Your task to perform on an android device: Open the Play Movies app and select the watchlist tab. Image 0: 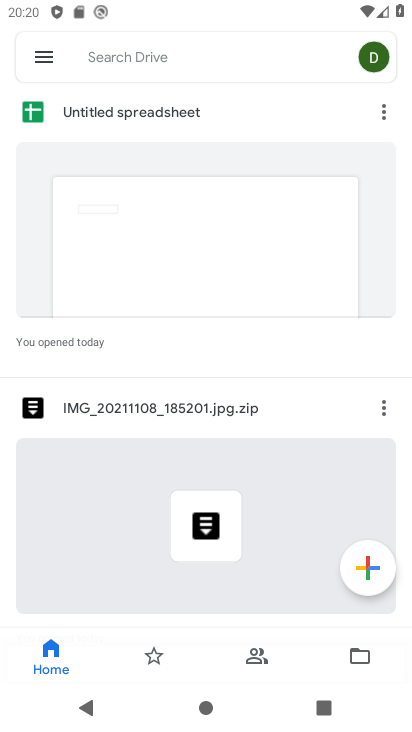
Step 0: press home button
Your task to perform on an android device: Open the Play Movies app and select the watchlist tab. Image 1: 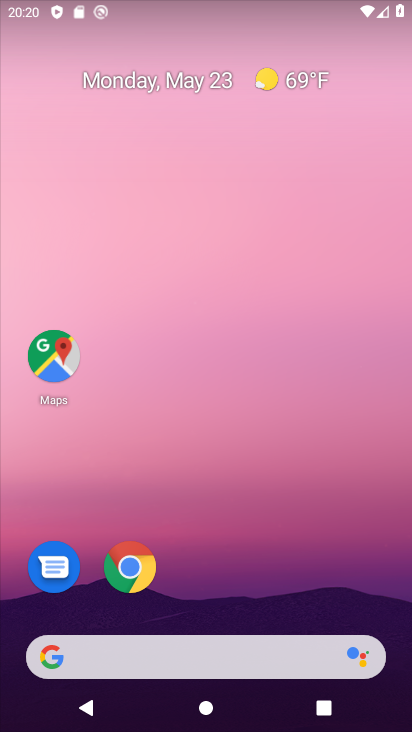
Step 1: drag from (226, 592) to (216, 4)
Your task to perform on an android device: Open the Play Movies app and select the watchlist tab. Image 2: 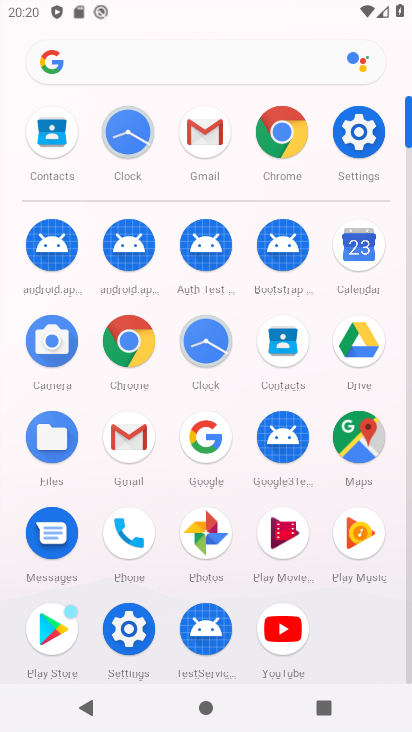
Step 2: click (57, 638)
Your task to perform on an android device: Open the Play Movies app and select the watchlist tab. Image 3: 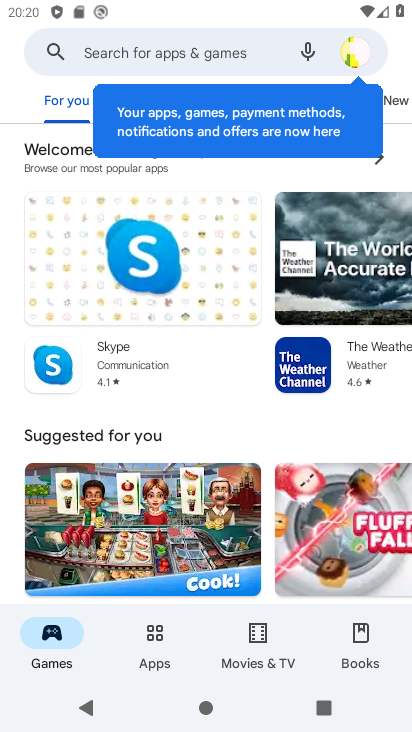
Step 3: press home button
Your task to perform on an android device: Open the Play Movies app and select the watchlist tab. Image 4: 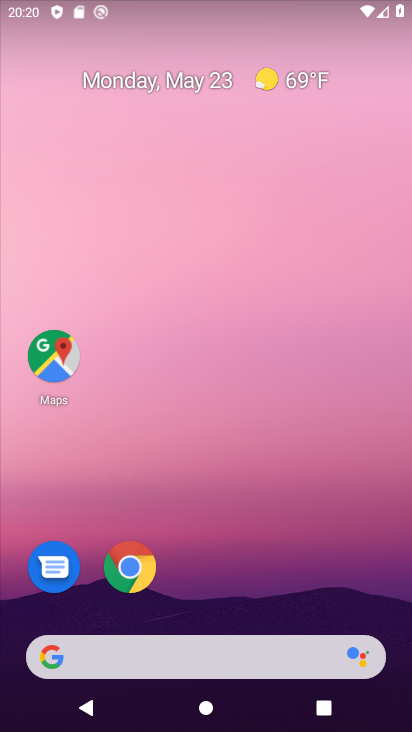
Step 4: drag from (231, 593) to (358, 13)
Your task to perform on an android device: Open the Play Movies app and select the watchlist tab. Image 5: 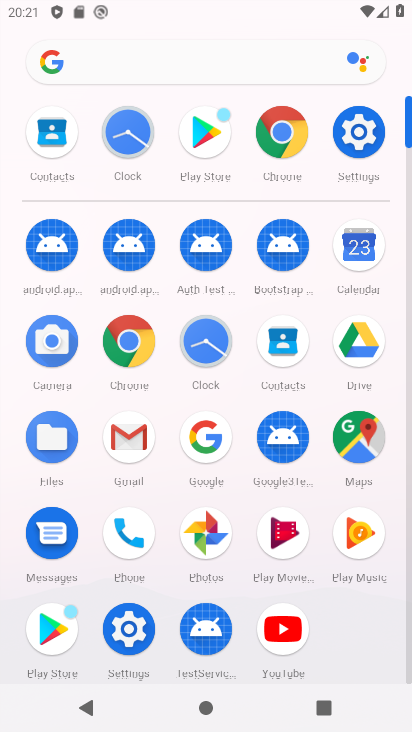
Step 5: click (284, 561)
Your task to perform on an android device: Open the Play Movies app and select the watchlist tab. Image 6: 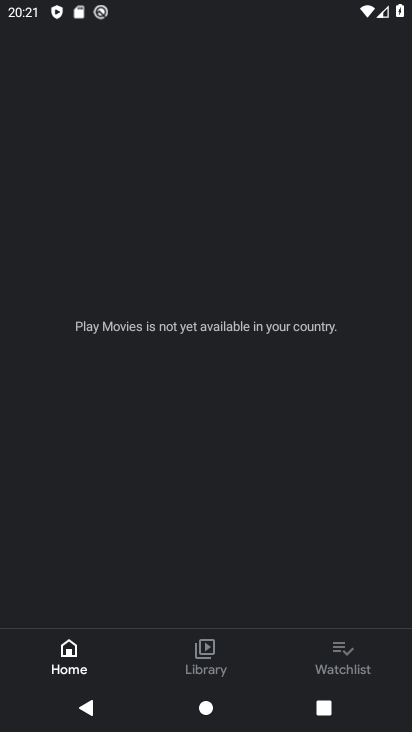
Step 6: click (343, 649)
Your task to perform on an android device: Open the Play Movies app and select the watchlist tab. Image 7: 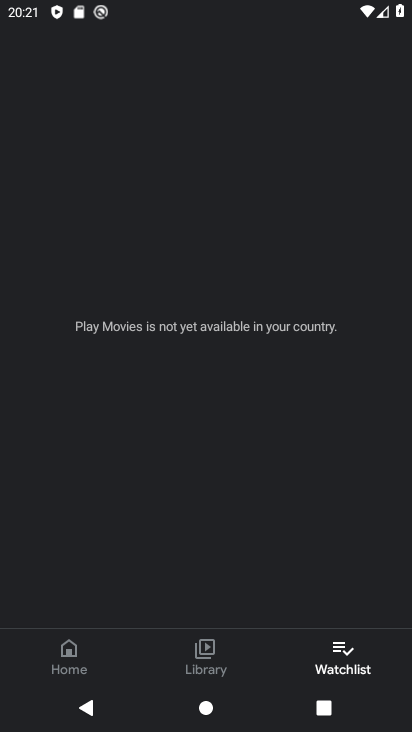
Step 7: task complete